Your task to perform on an android device: Open accessibility settings Image 0: 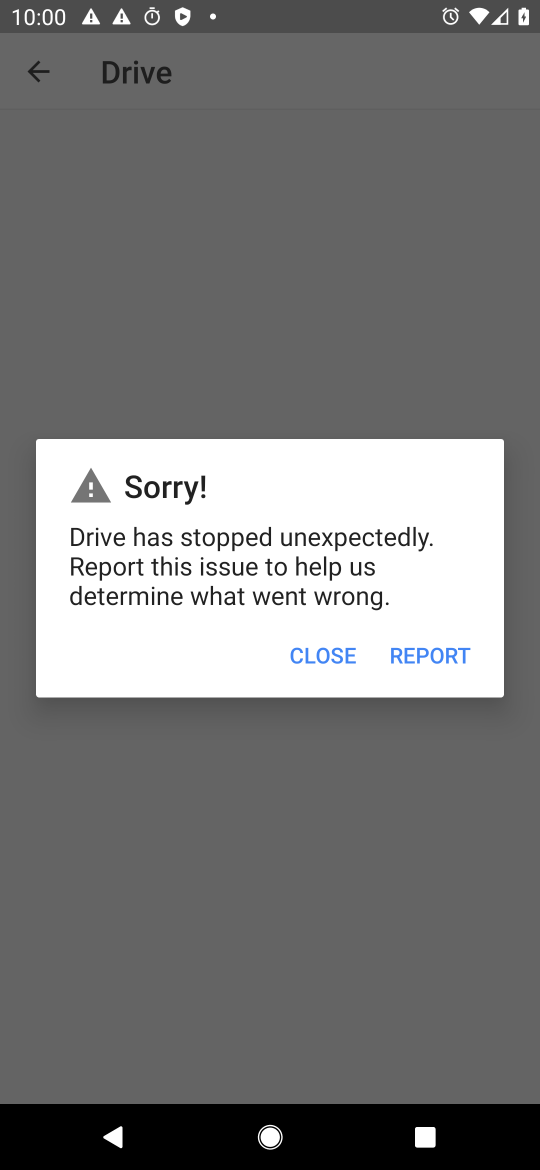
Step 0: drag from (247, 911) to (354, 475)
Your task to perform on an android device: Open accessibility settings Image 1: 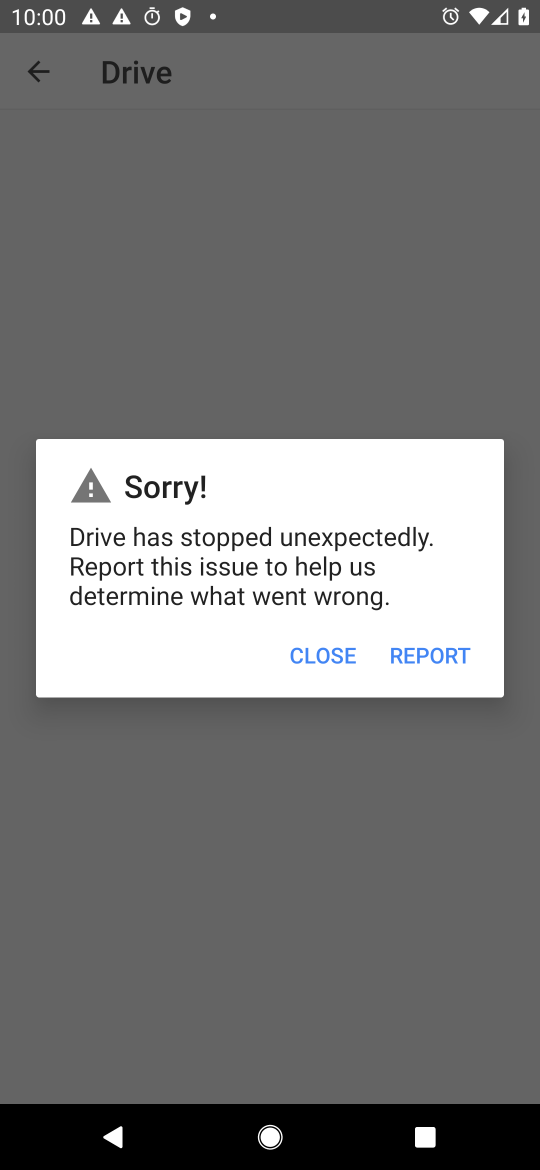
Step 1: drag from (300, 815) to (342, 318)
Your task to perform on an android device: Open accessibility settings Image 2: 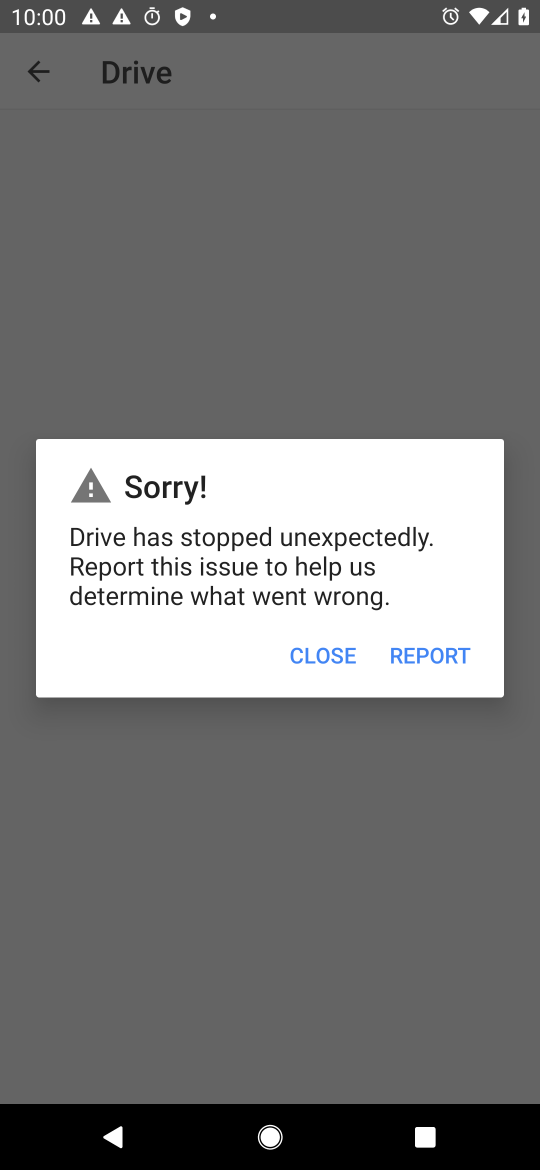
Step 2: press home button
Your task to perform on an android device: Open accessibility settings Image 3: 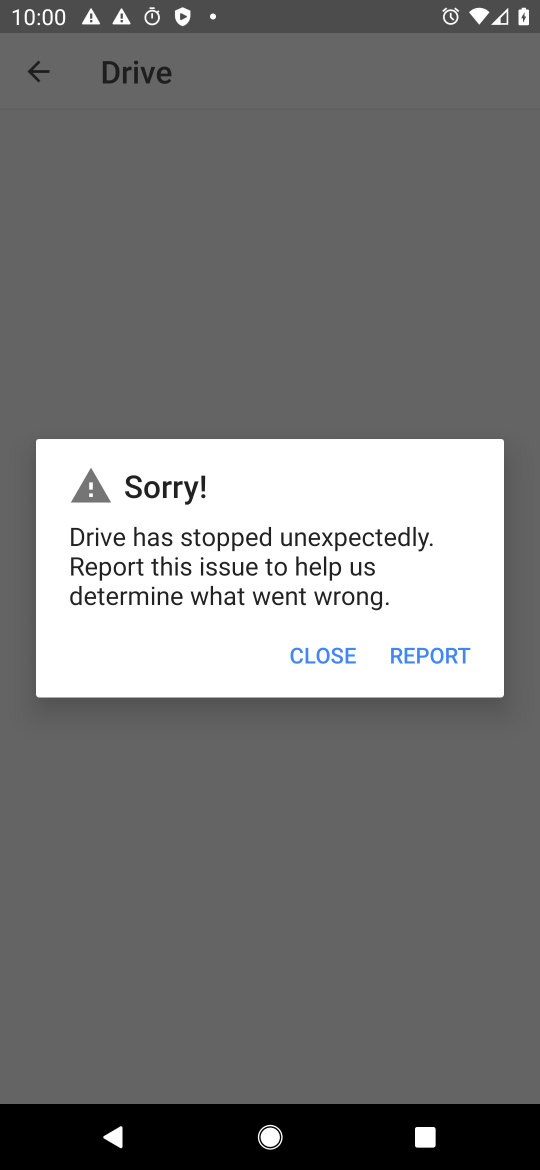
Step 3: click (374, 286)
Your task to perform on an android device: Open accessibility settings Image 4: 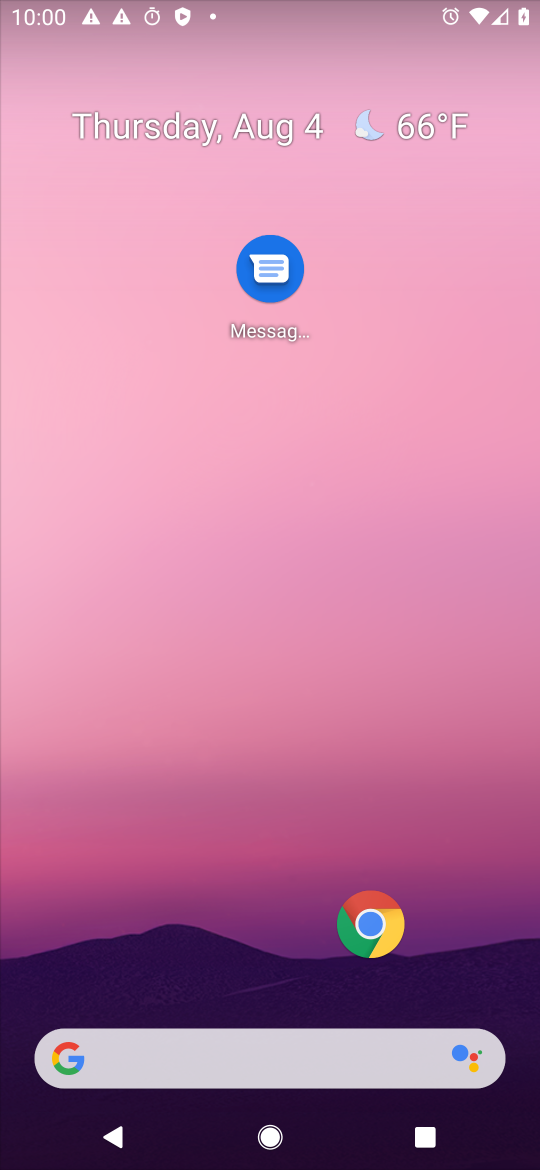
Step 4: drag from (253, 854) to (292, 465)
Your task to perform on an android device: Open accessibility settings Image 5: 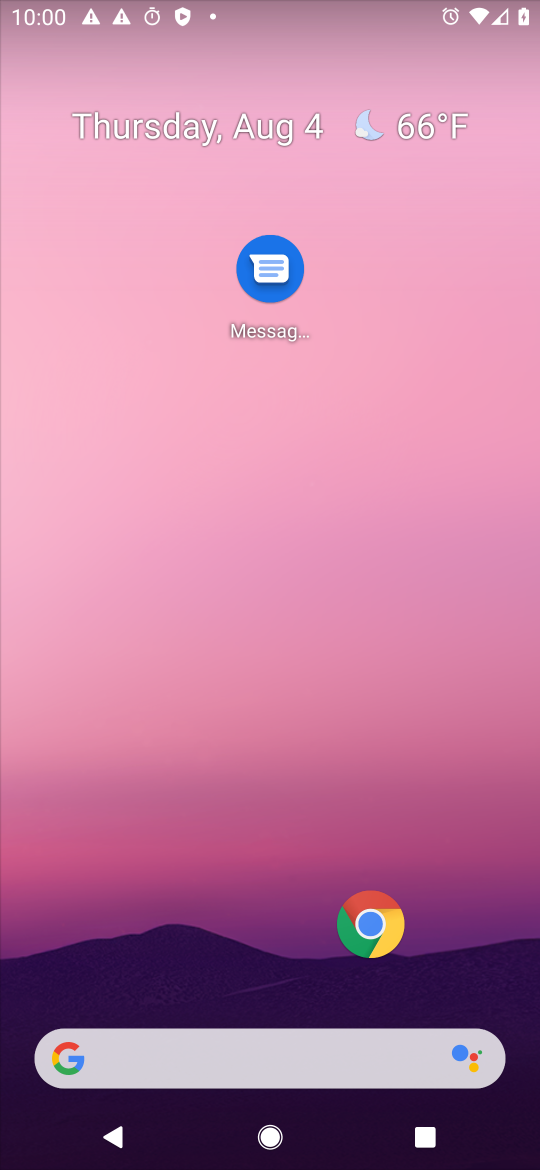
Step 5: drag from (150, 1015) to (228, 464)
Your task to perform on an android device: Open accessibility settings Image 6: 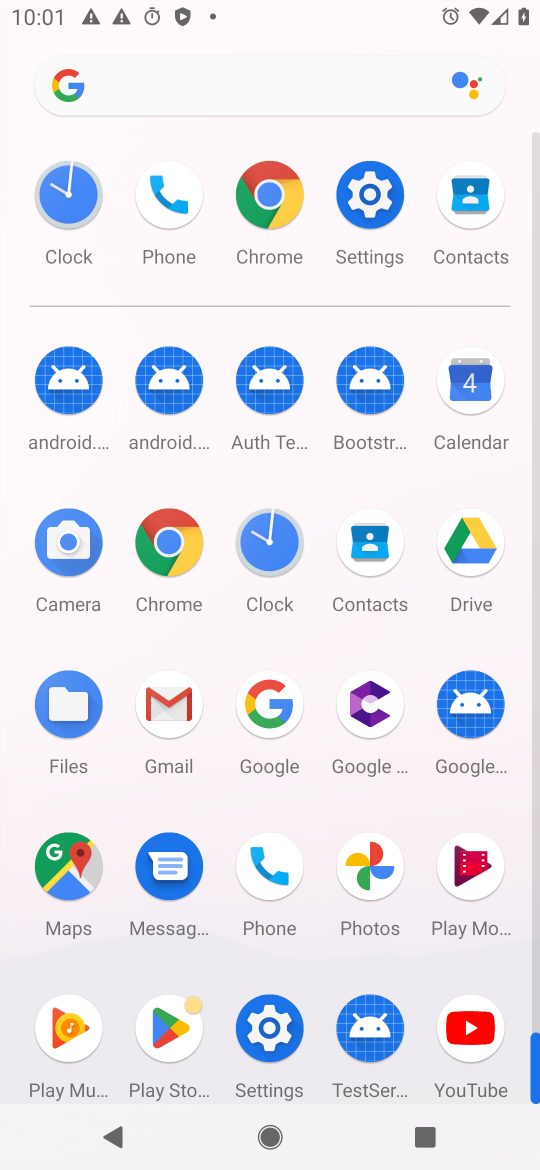
Step 6: click (256, 1012)
Your task to perform on an android device: Open accessibility settings Image 7: 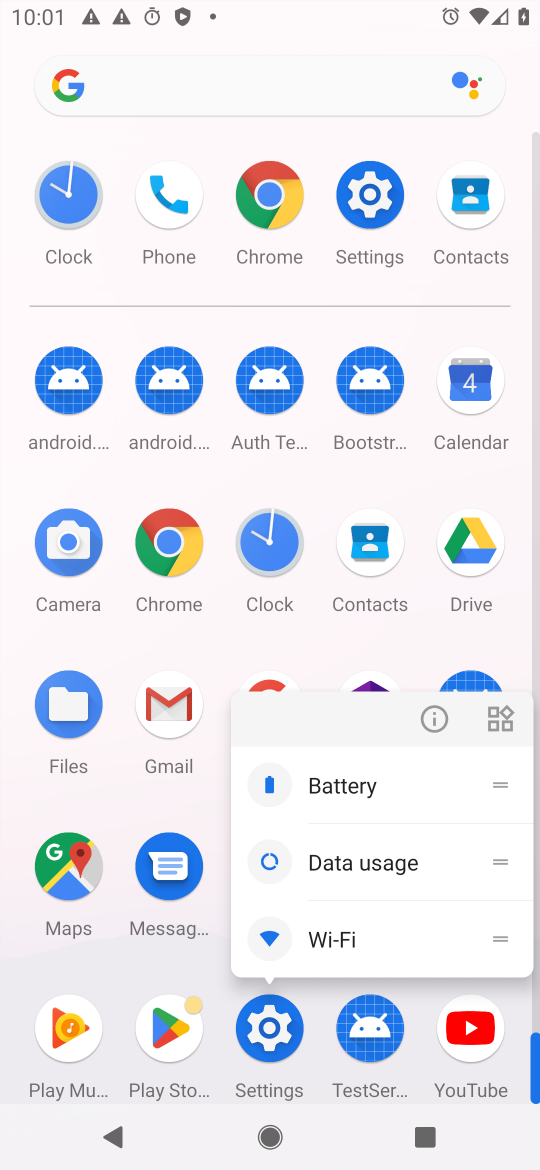
Step 7: click (430, 715)
Your task to perform on an android device: Open accessibility settings Image 8: 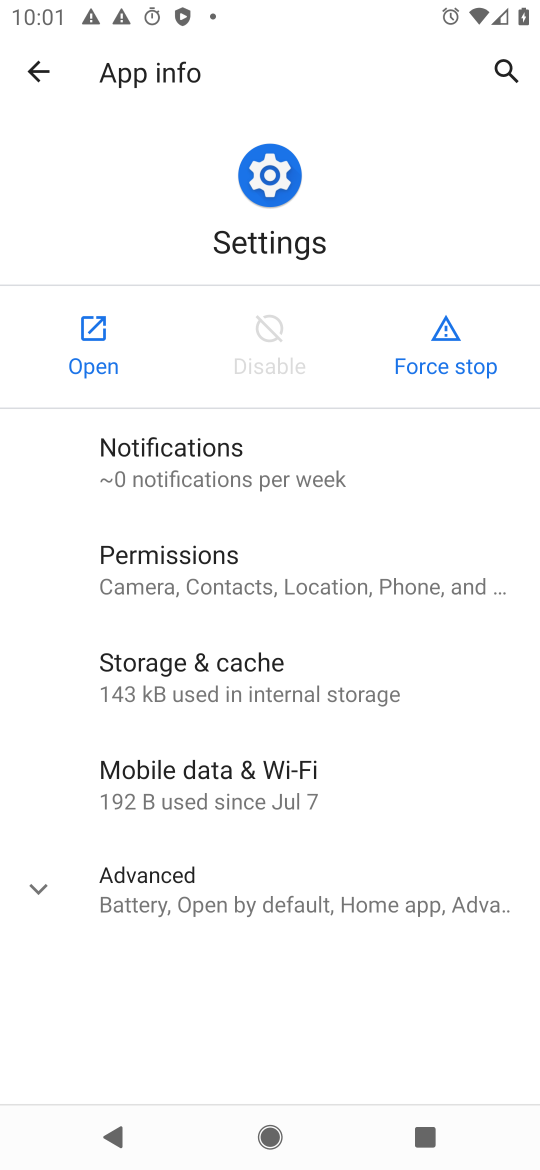
Step 8: click (82, 344)
Your task to perform on an android device: Open accessibility settings Image 9: 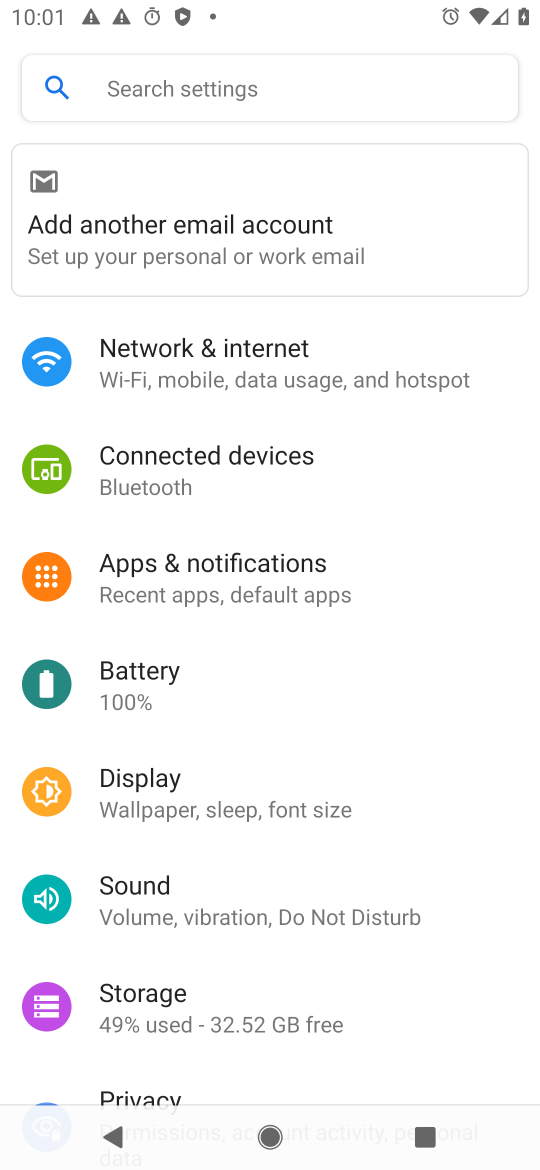
Step 9: drag from (291, 995) to (395, 189)
Your task to perform on an android device: Open accessibility settings Image 10: 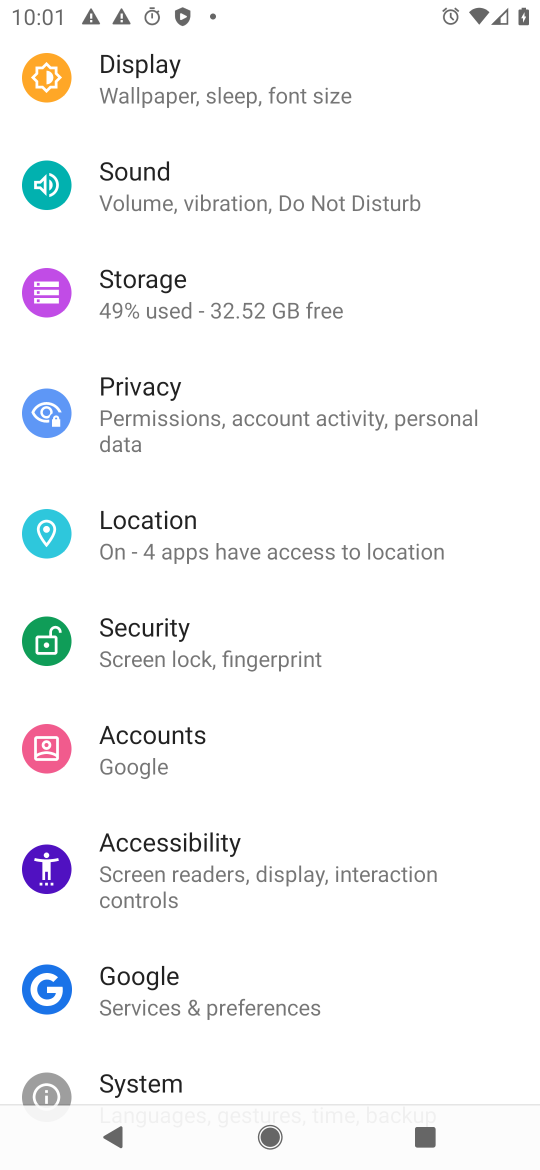
Step 10: click (195, 863)
Your task to perform on an android device: Open accessibility settings Image 11: 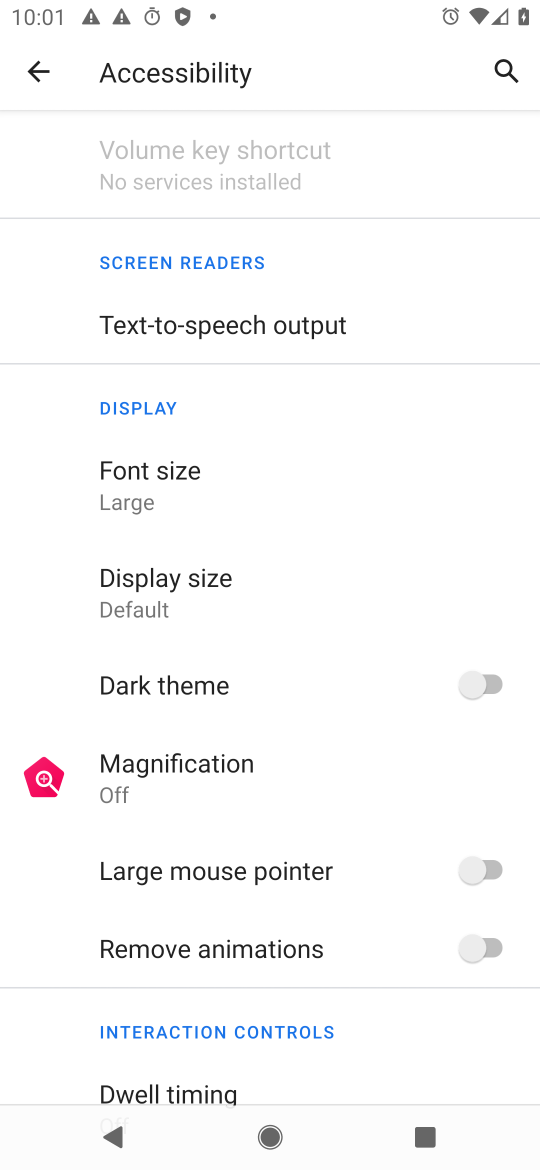
Step 11: task complete